Your task to perform on an android device: find snoozed emails in the gmail app Image 0: 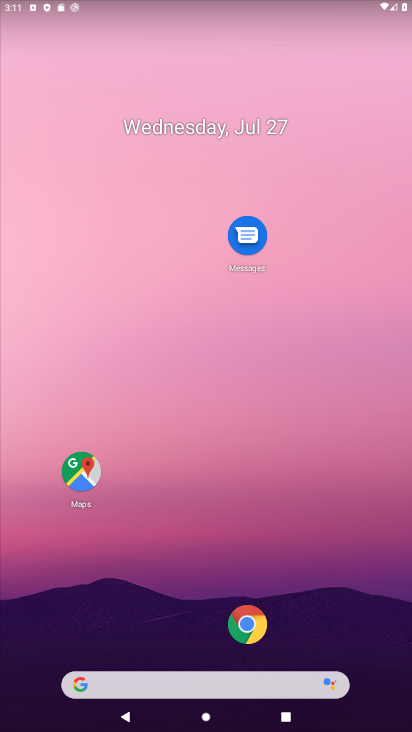
Step 0: drag from (120, 630) to (270, 71)
Your task to perform on an android device: find snoozed emails in the gmail app Image 1: 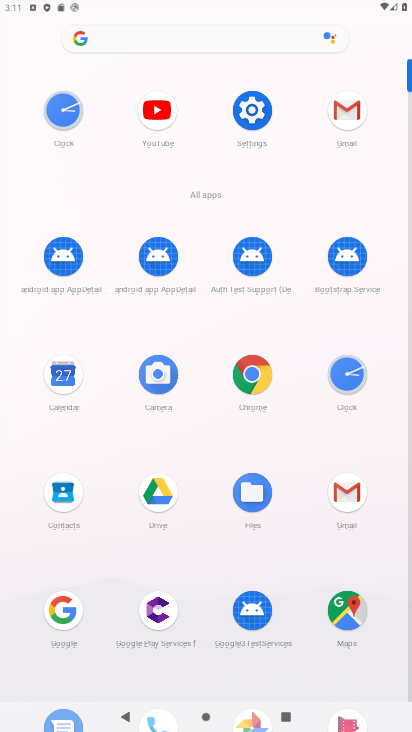
Step 1: click (337, 118)
Your task to perform on an android device: find snoozed emails in the gmail app Image 2: 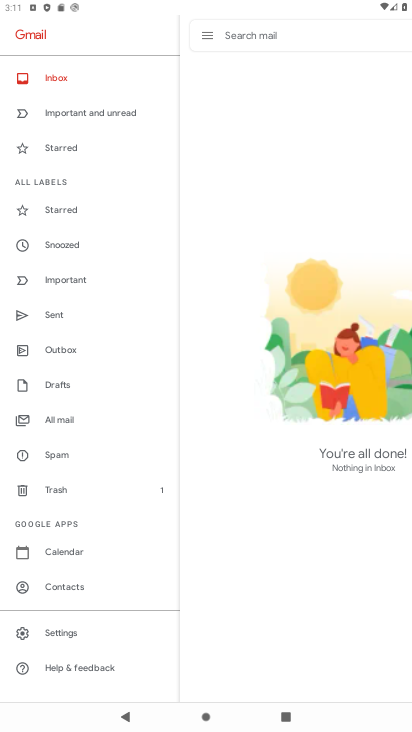
Step 2: click (30, 254)
Your task to perform on an android device: find snoozed emails in the gmail app Image 3: 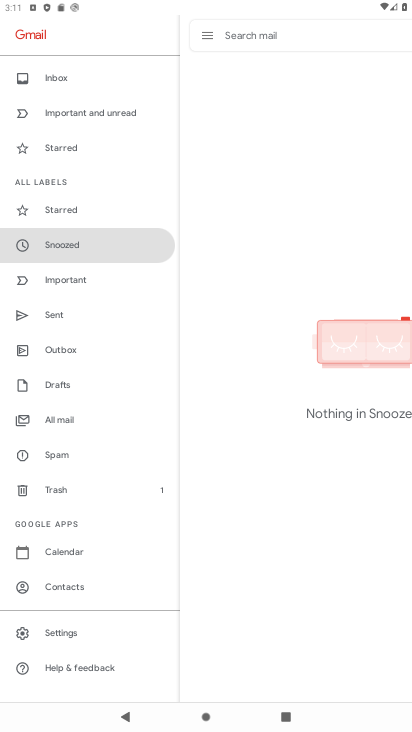
Step 3: task complete